Your task to perform on an android device: open chrome privacy settings Image 0: 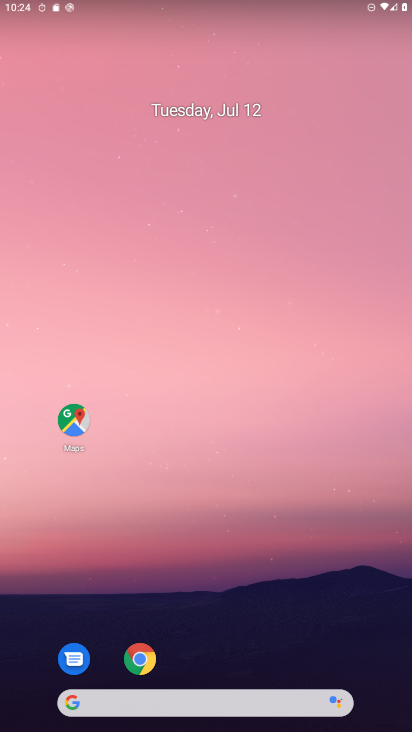
Step 0: click (134, 652)
Your task to perform on an android device: open chrome privacy settings Image 1: 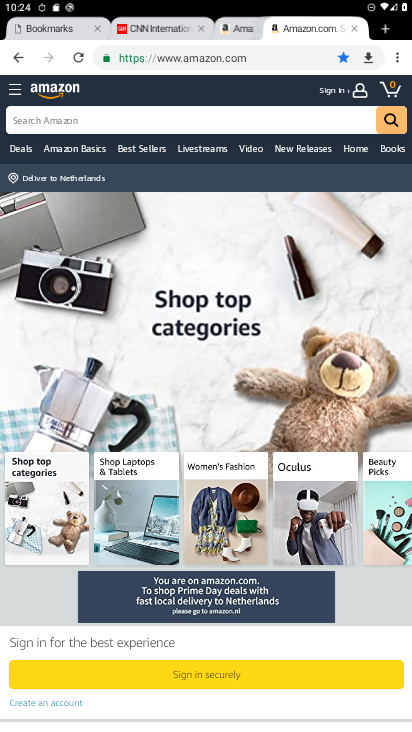
Step 1: click (397, 62)
Your task to perform on an android device: open chrome privacy settings Image 2: 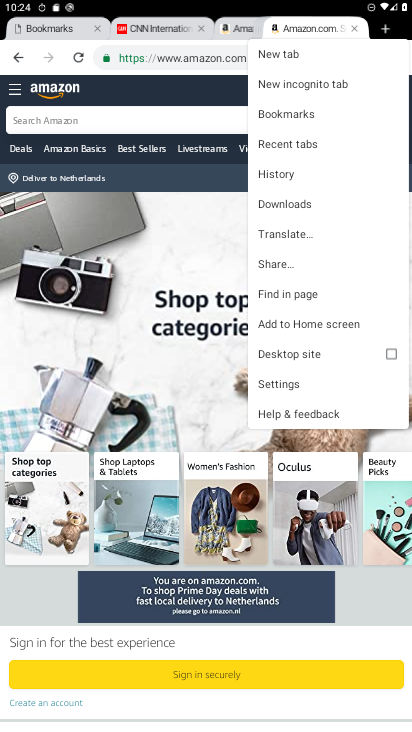
Step 2: click (284, 381)
Your task to perform on an android device: open chrome privacy settings Image 3: 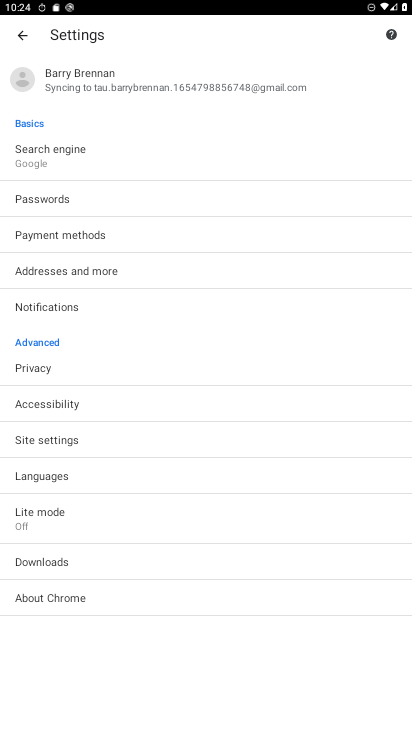
Step 3: click (34, 368)
Your task to perform on an android device: open chrome privacy settings Image 4: 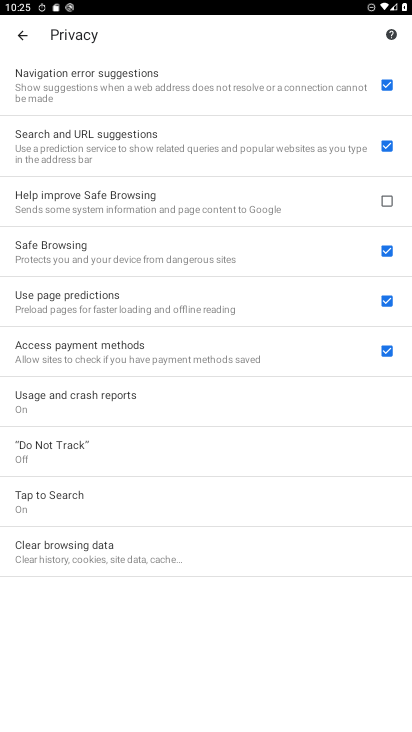
Step 4: task complete